Your task to perform on an android device: turn notification dots on Image 0: 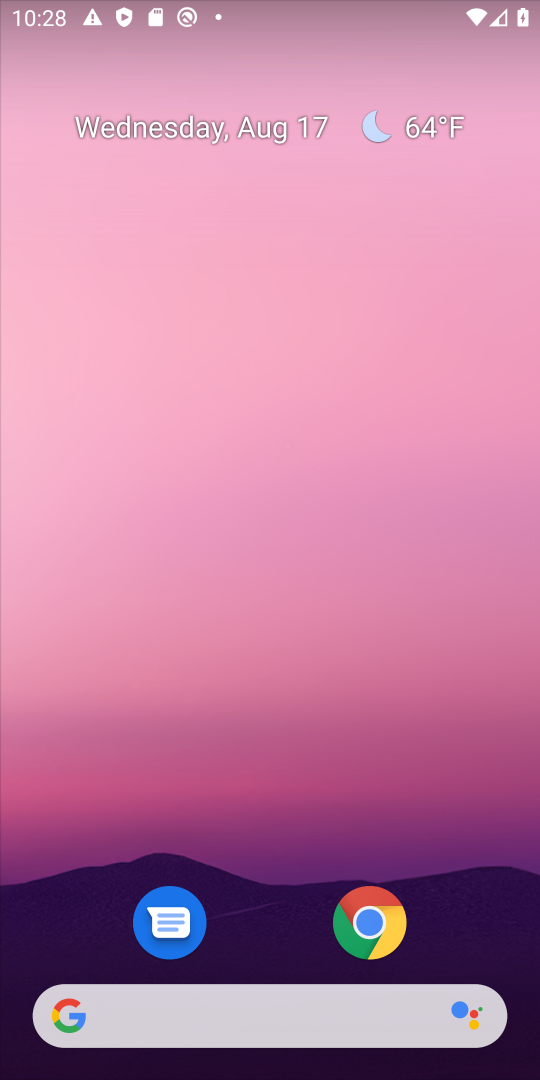
Step 0: drag from (255, 839) to (291, 68)
Your task to perform on an android device: turn notification dots on Image 1: 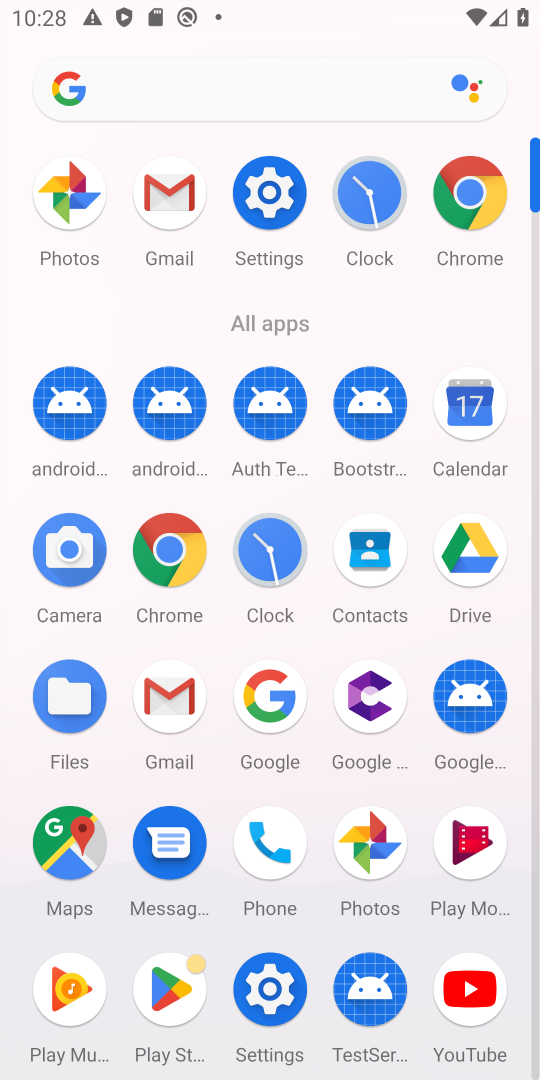
Step 1: click (280, 985)
Your task to perform on an android device: turn notification dots on Image 2: 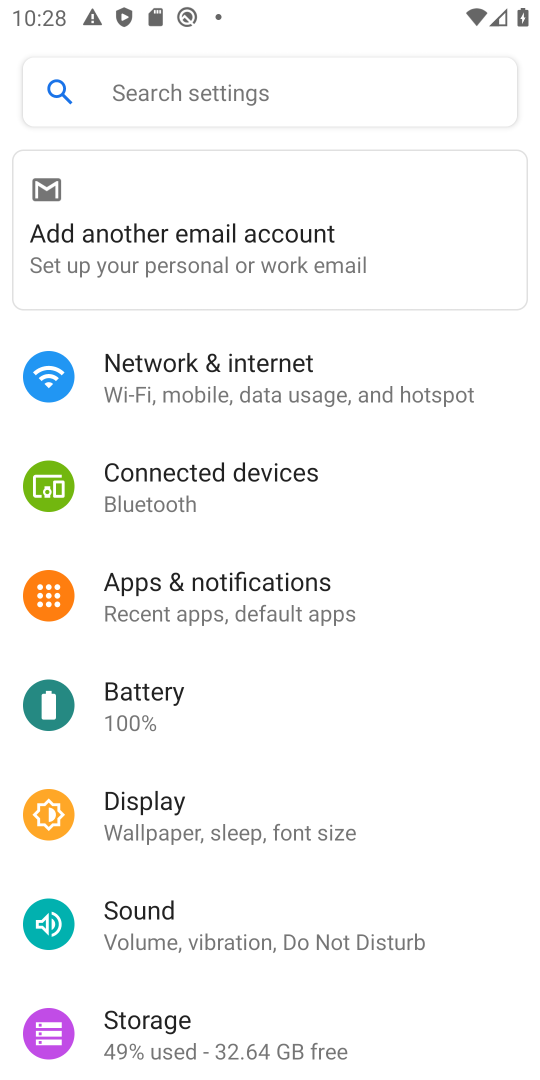
Step 2: click (278, 609)
Your task to perform on an android device: turn notification dots on Image 3: 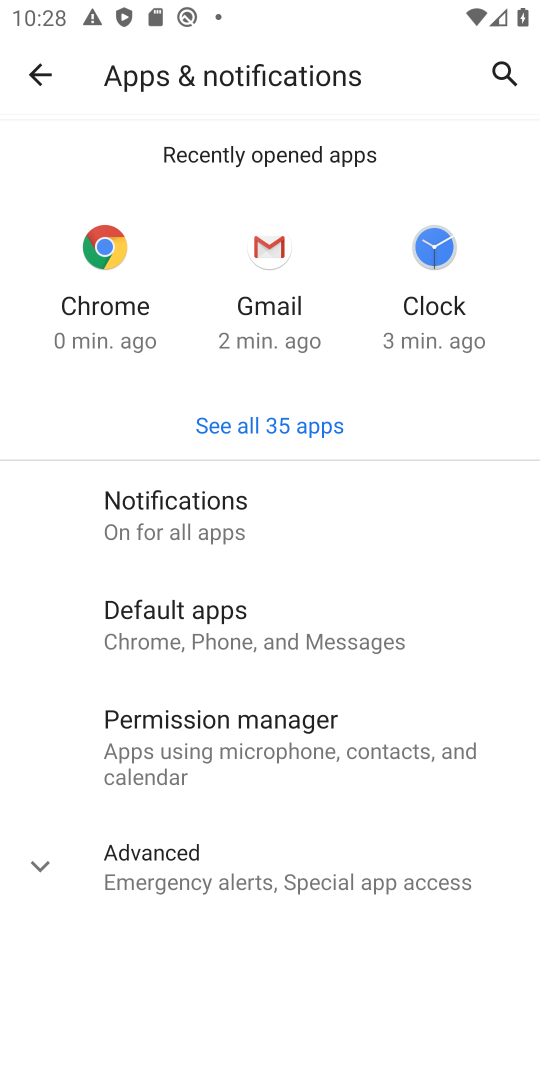
Step 3: click (242, 524)
Your task to perform on an android device: turn notification dots on Image 4: 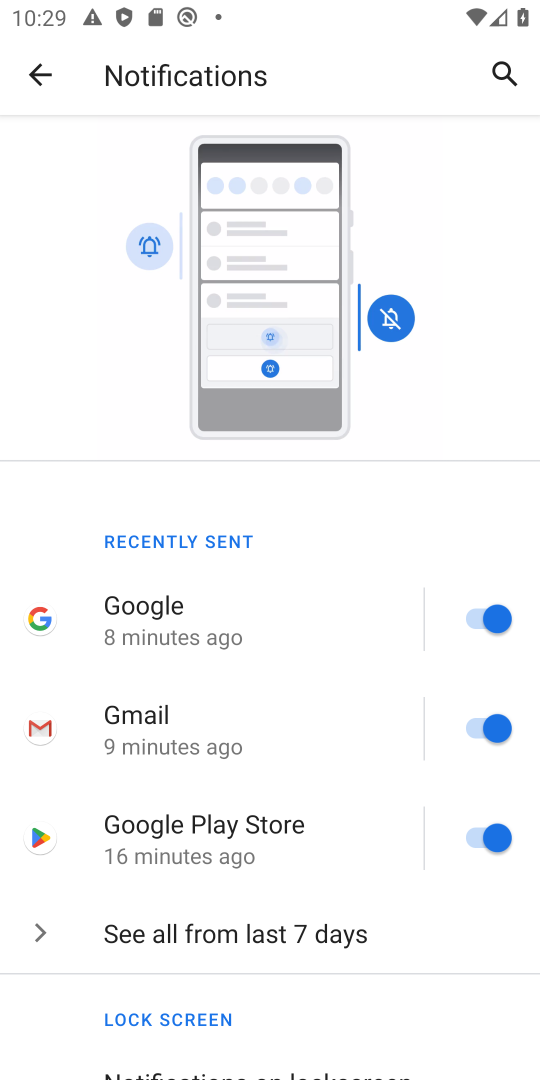
Step 4: drag from (336, 881) to (382, 78)
Your task to perform on an android device: turn notification dots on Image 5: 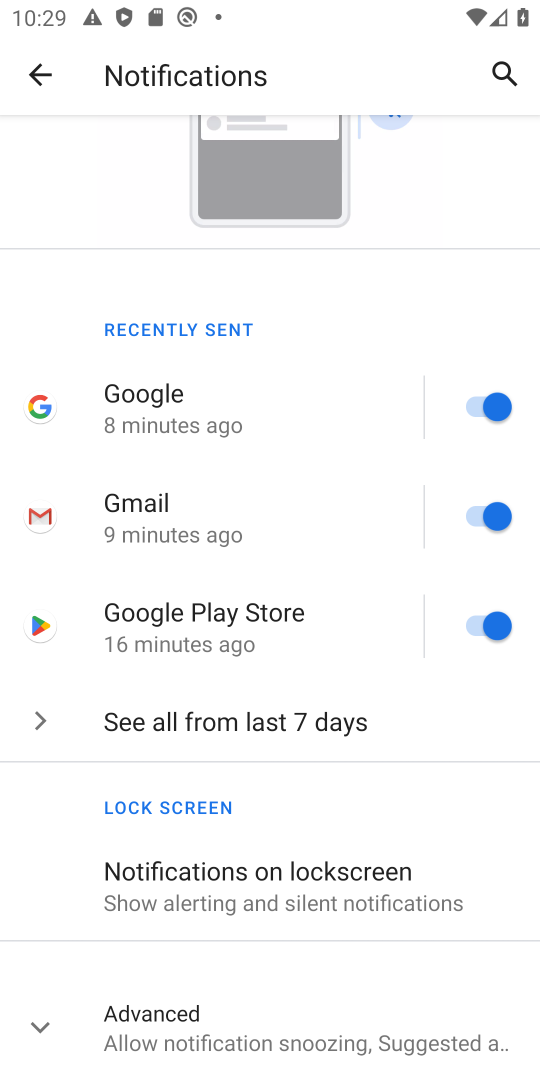
Step 5: click (170, 1034)
Your task to perform on an android device: turn notification dots on Image 6: 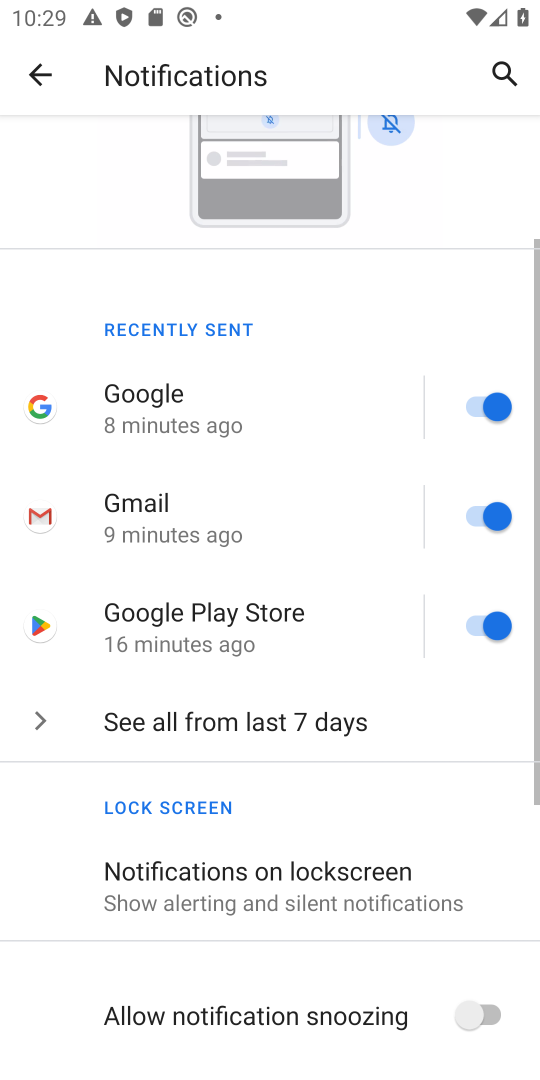
Step 6: task complete